Your task to perform on an android device: Go to Maps Image 0: 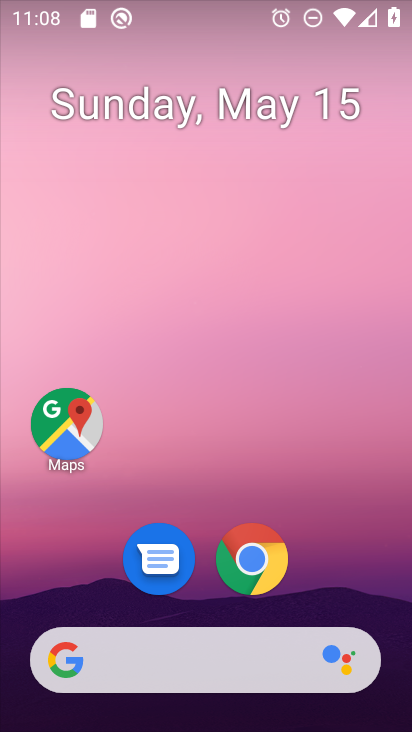
Step 0: click (79, 418)
Your task to perform on an android device: Go to Maps Image 1: 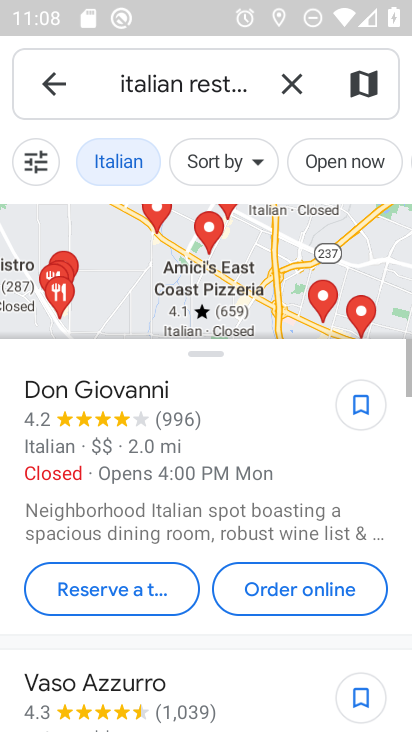
Step 1: click (302, 87)
Your task to perform on an android device: Go to Maps Image 2: 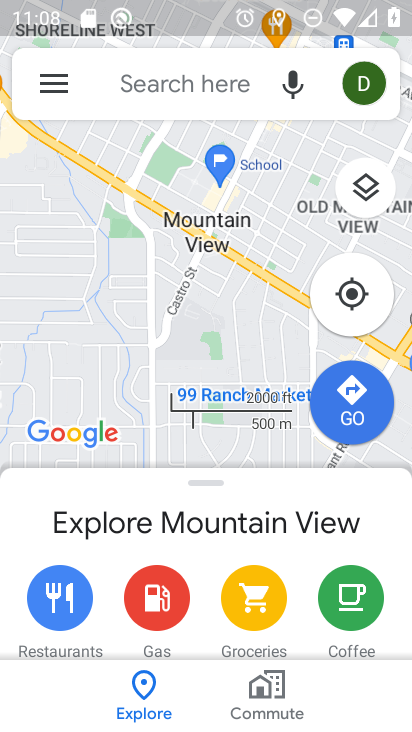
Step 2: task complete